Your task to perform on an android device: Check the weather Image 0: 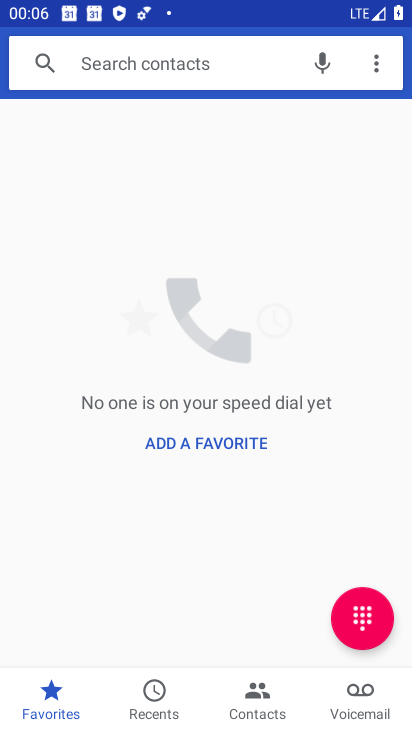
Step 0: press home button
Your task to perform on an android device: Check the weather Image 1: 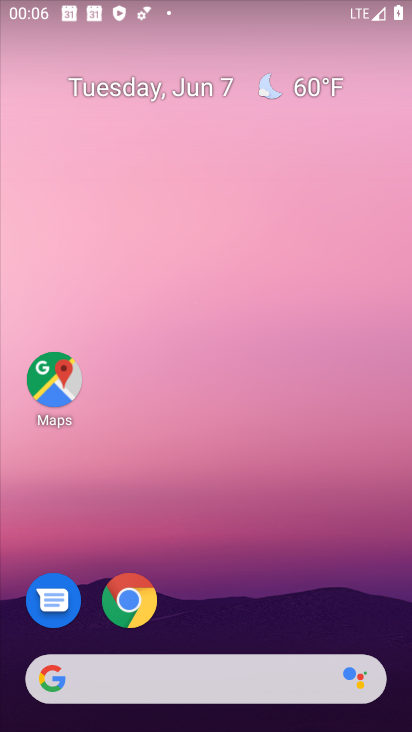
Step 1: drag from (214, 725) to (219, 39)
Your task to perform on an android device: Check the weather Image 2: 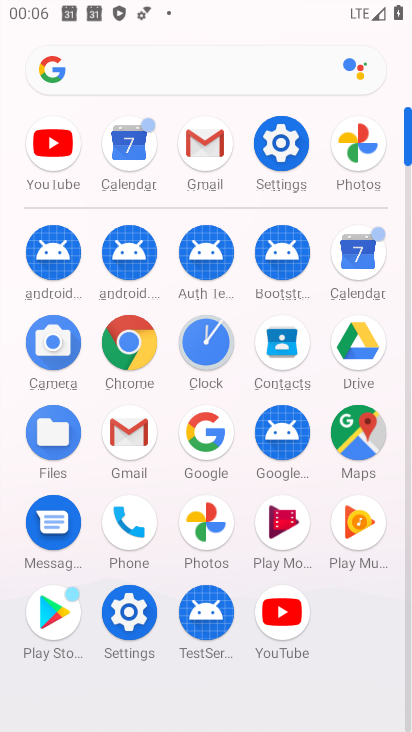
Step 2: click (210, 428)
Your task to perform on an android device: Check the weather Image 3: 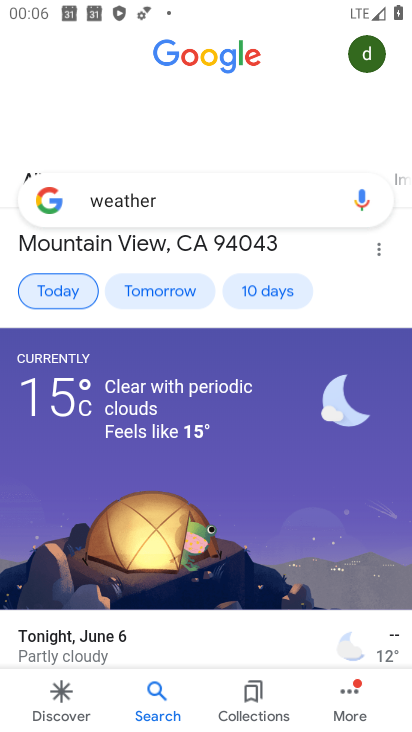
Step 3: click (63, 289)
Your task to perform on an android device: Check the weather Image 4: 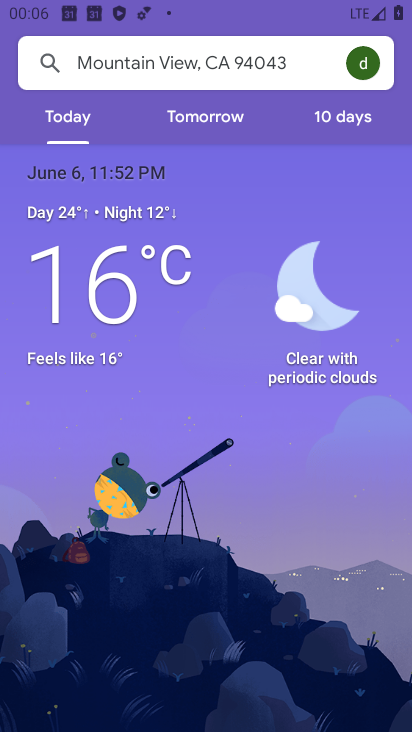
Step 4: task complete